Your task to perform on an android device: check data usage Image 0: 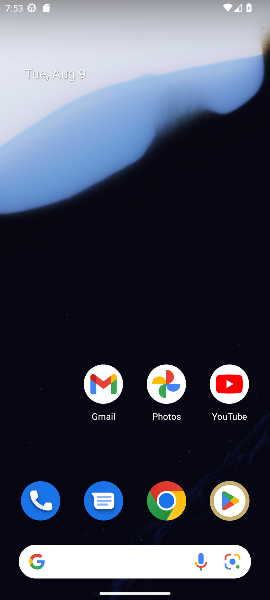
Step 0: press home button
Your task to perform on an android device: check data usage Image 1: 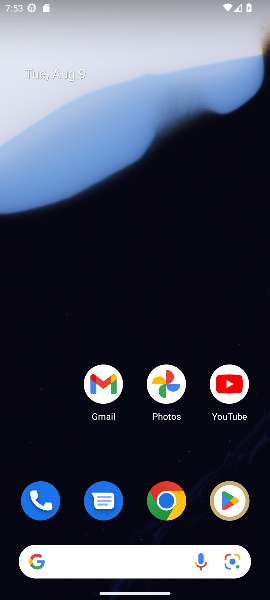
Step 1: drag from (125, 452) to (195, 35)
Your task to perform on an android device: check data usage Image 2: 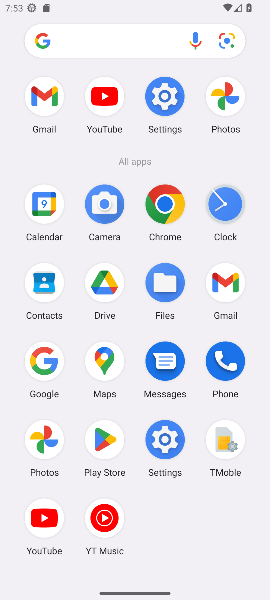
Step 2: click (164, 91)
Your task to perform on an android device: check data usage Image 3: 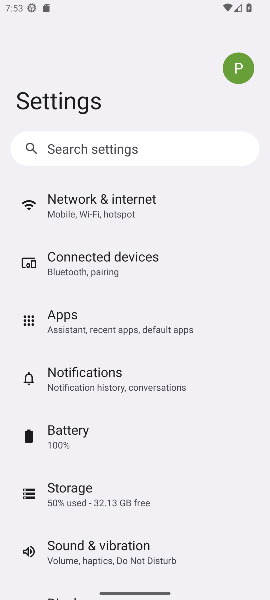
Step 3: click (136, 206)
Your task to perform on an android device: check data usage Image 4: 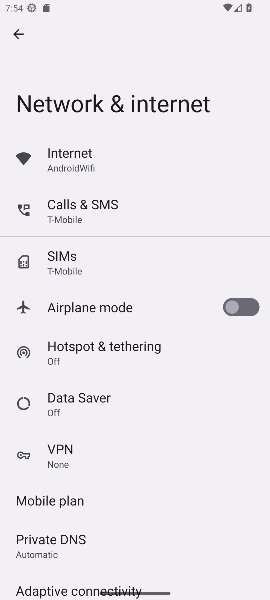
Step 4: click (93, 157)
Your task to perform on an android device: check data usage Image 5: 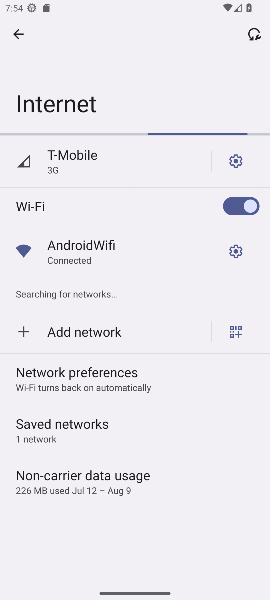
Step 5: click (109, 476)
Your task to perform on an android device: check data usage Image 6: 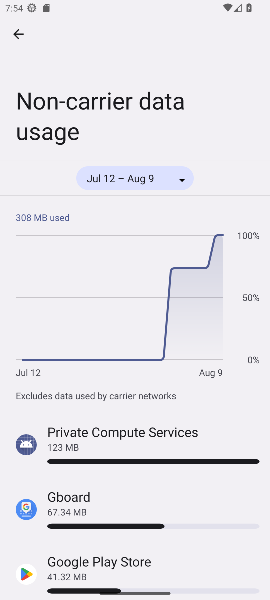
Step 6: task complete